Your task to perform on an android device: check the backup settings in the google photos Image 0: 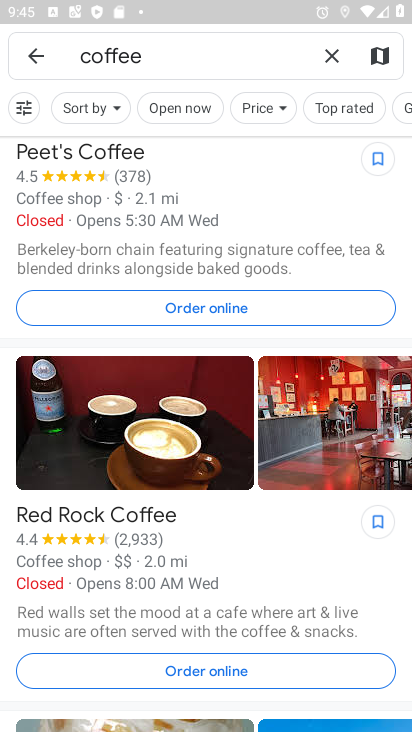
Step 0: press home button
Your task to perform on an android device: check the backup settings in the google photos Image 1: 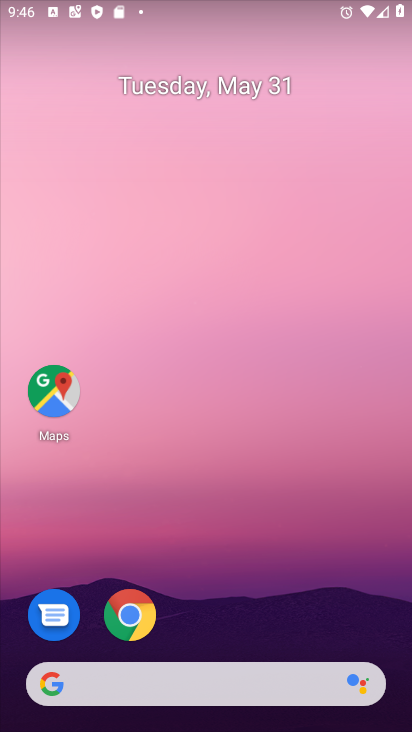
Step 1: drag from (304, 616) to (272, 253)
Your task to perform on an android device: check the backup settings in the google photos Image 2: 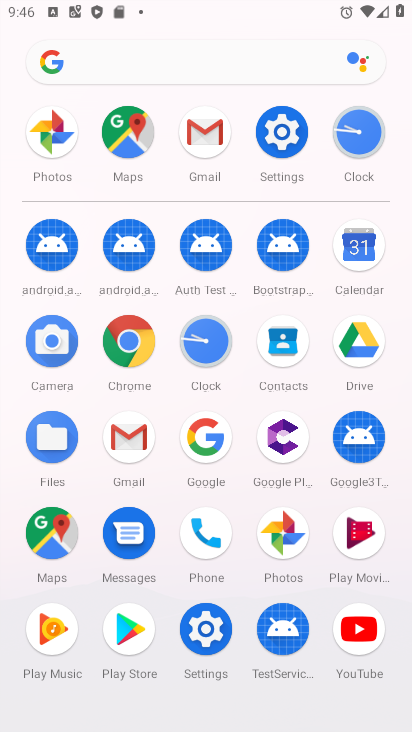
Step 2: click (286, 538)
Your task to perform on an android device: check the backup settings in the google photos Image 3: 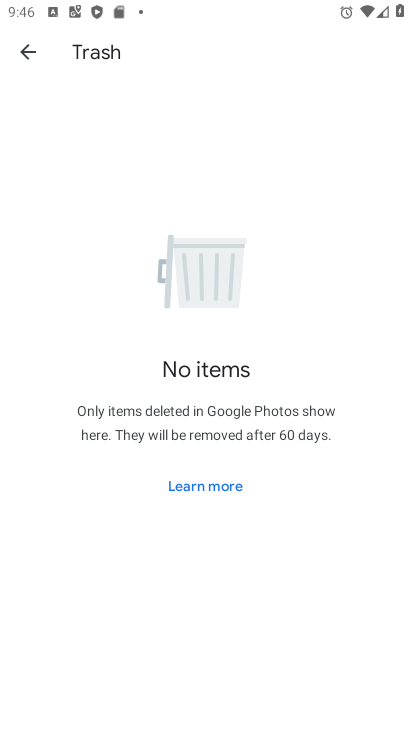
Step 3: press back button
Your task to perform on an android device: check the backup settings in the google photos Image 4: 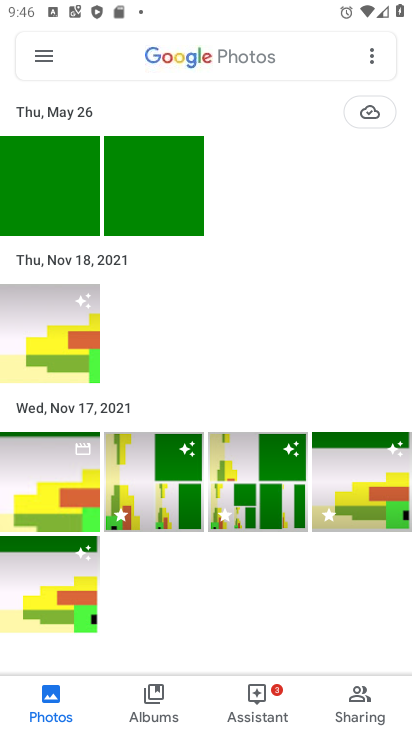
Step 4: click (37, 47)
Your task to perform on an android device: check the backup settings in the google photos Image 5: 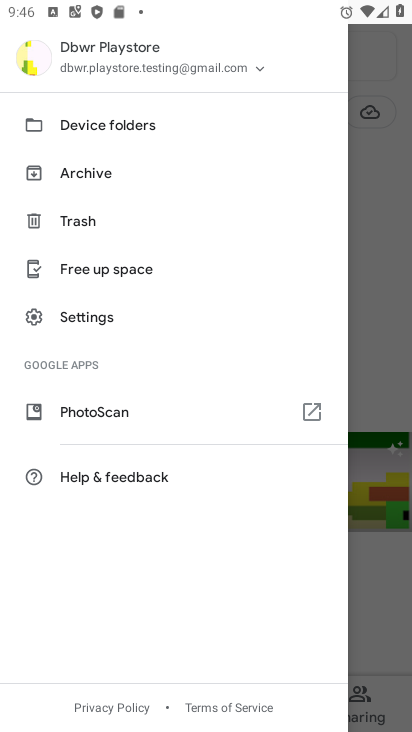
Step 5: click (74, 300)
Your task to perform on an android device: check the backup settings in the google photos Image 6: 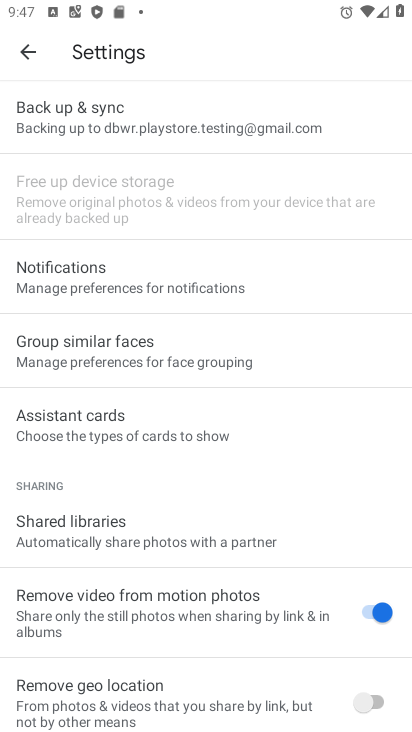
Step 6: click (87, 114)
Your task to perform on an android device: check the backup settings in the google photos Image 7: 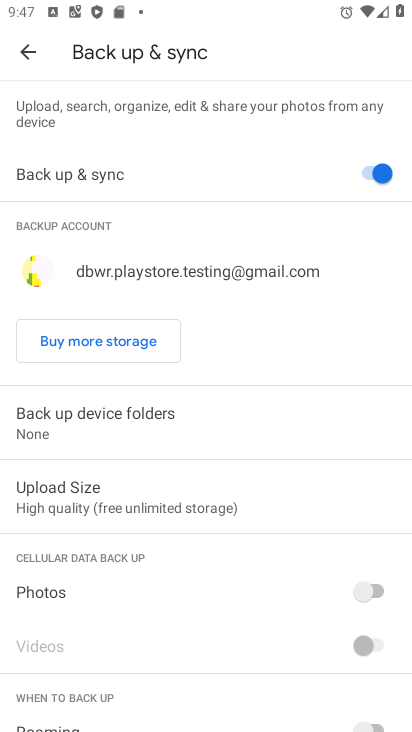
Step 7: task complete